Your task to perform on an android device: change notification settings in the gmail app Image 0: 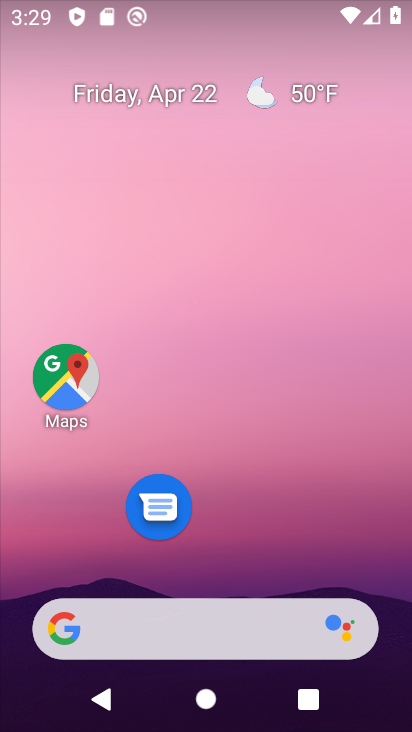
Step 0: drag from (272, 481) to (329, 53)
Your task to perform on an android device: change notification settings in the gmail app Image 1: 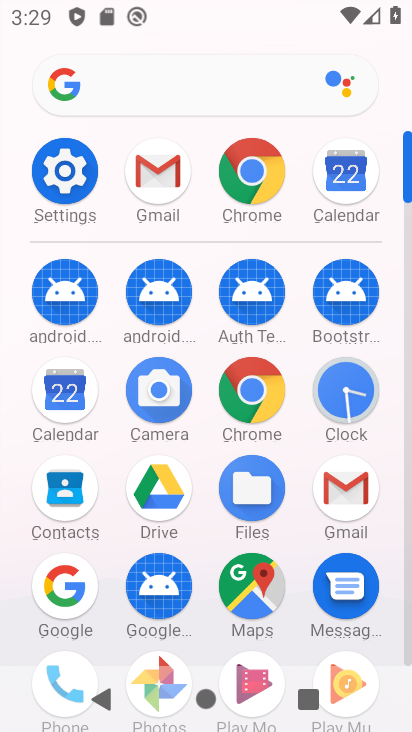
Step 1: click (162, 170)
Your task to perform on an android device: change notification settings in the gmail app Image 2: 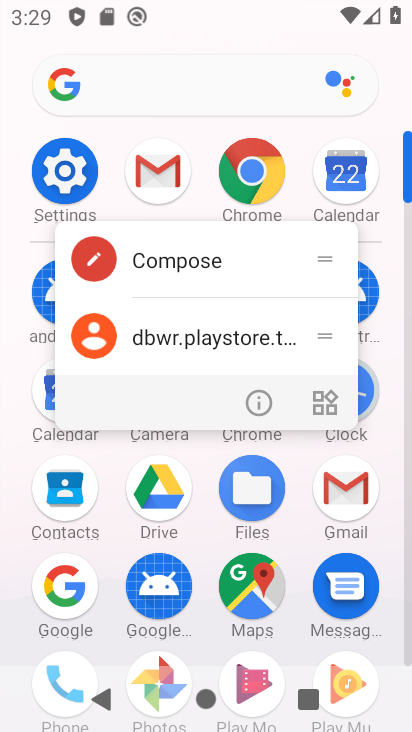
Step 2: click (255, 400)
Your task to perform on an android device: change notification settings in the gmail app Image 3: 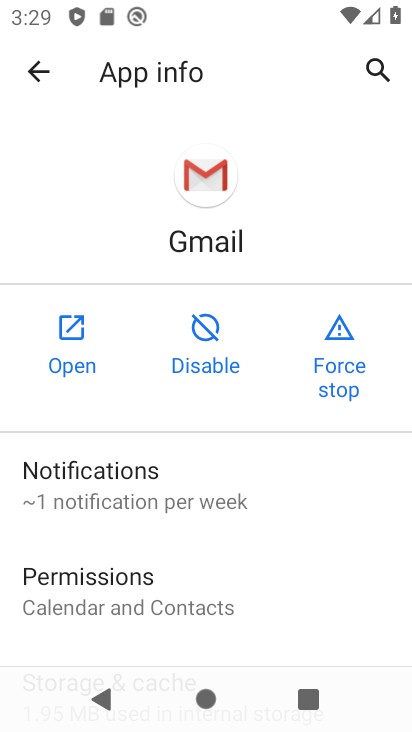
Step 3: click (152, 481)
Your task to perform on an android device: change notification settings in the gmail app Image 4: 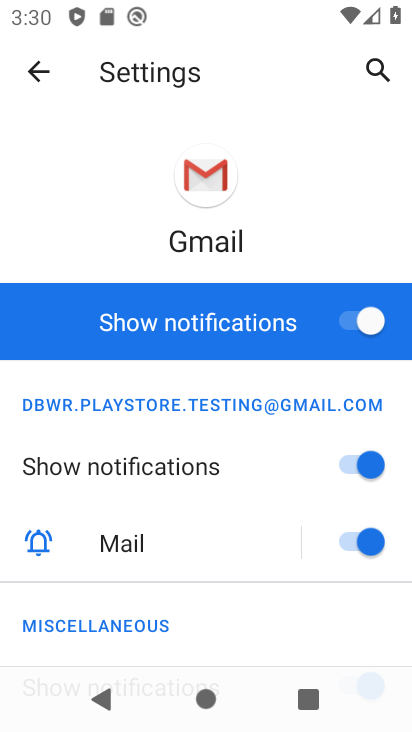
Step 4: drag from (185, 571) to (227, 128)
Your task to perform on an android device: change notification settings in the gmail app Image 5: 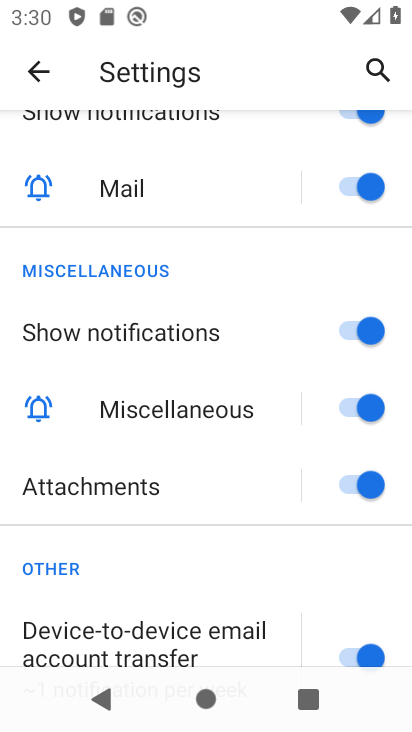
Step 5: click (361, 329)
Your task to perform on an android device: change notification settings in the gmail app Image 6: 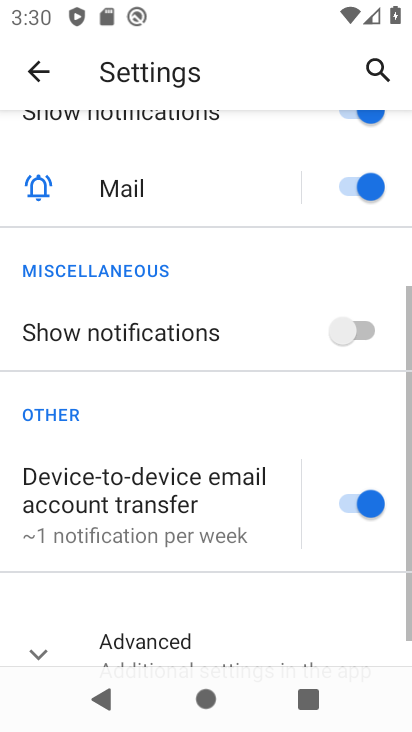
Step 6: task complete